Your task to perform on an android device: Open Google Maps Image 0: 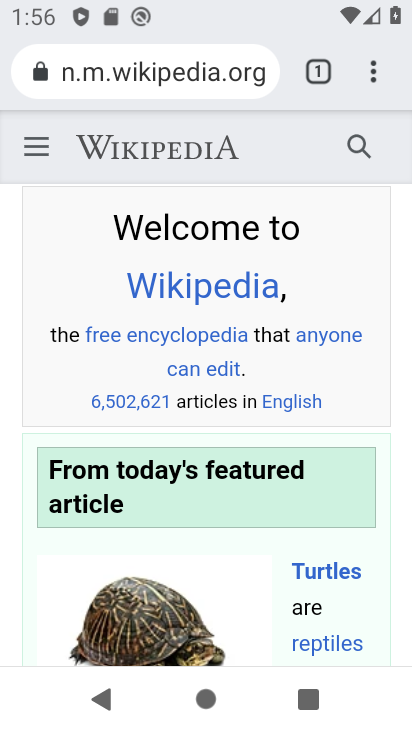
Step 0: press home button
Your task to perform on an android device: Open Google Maps Image 1: 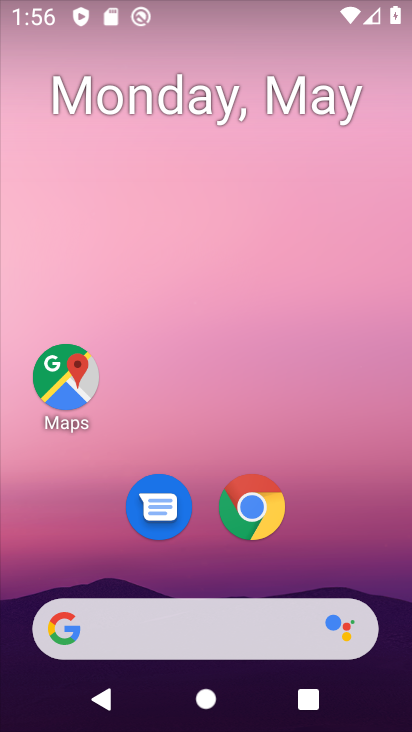
Step 1: click (45, 391)
Your task to perform on an android device: Open Google Maps Image 2: 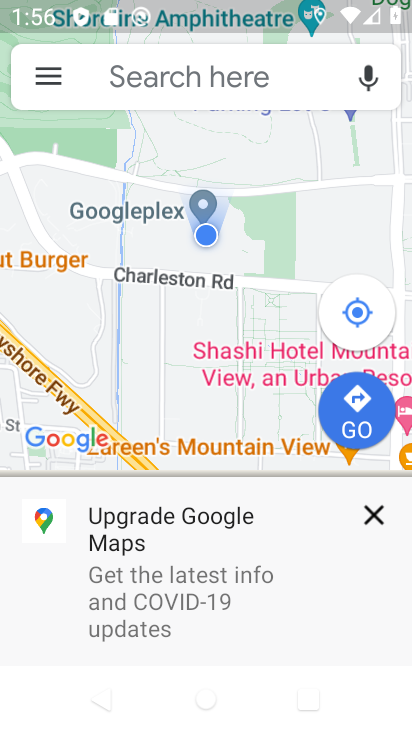
Step 2: click (372, 520)
Your task to perform on an android device: Open Google Maps Image 3: 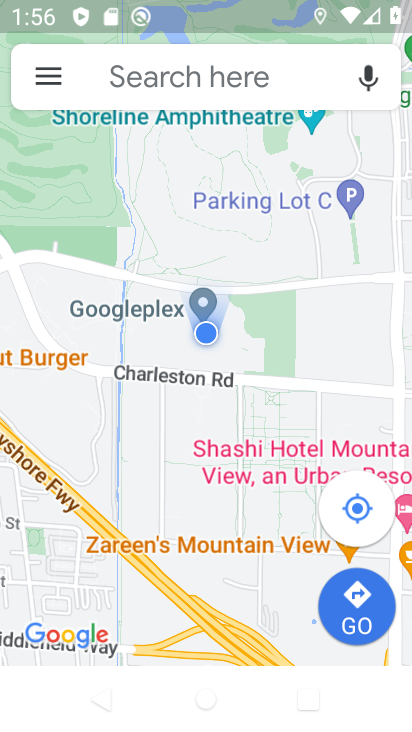
Step 3: task complete